Your task to perform on an android device: Open Google Chrome Image 0: 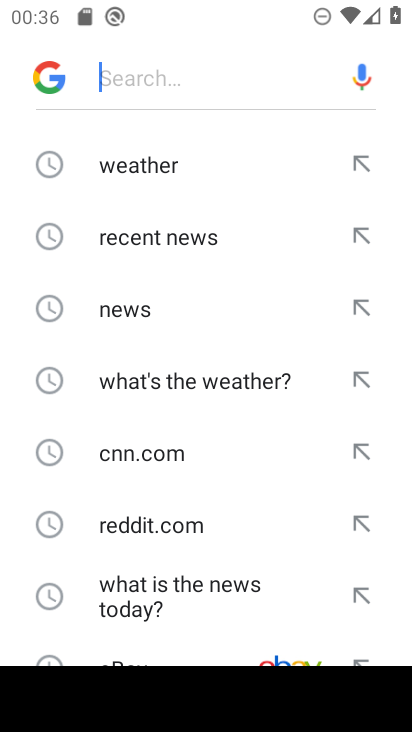
Step 0: press home button
Your task to perform on an android device: Open Google Chrome Image 1: 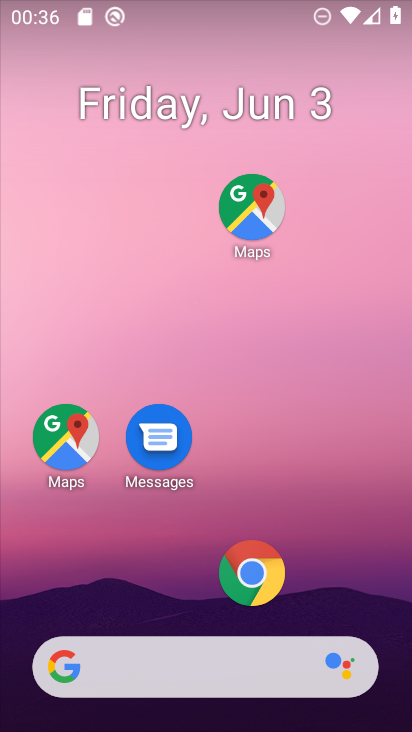
Step 1: click (258, 575)
Your task to perform on an android device: Open Google Chrome Image 2: 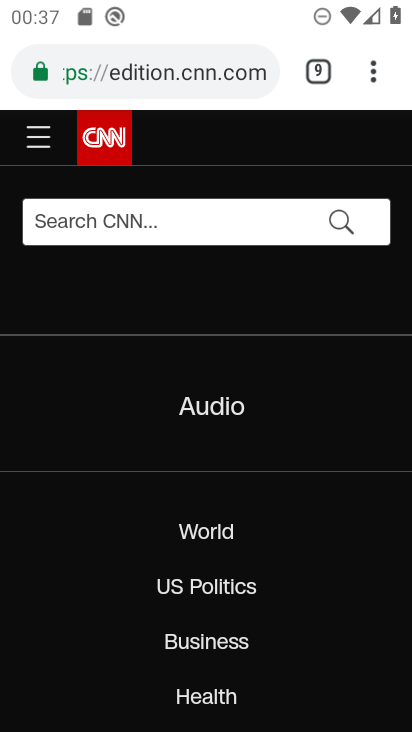
Step 2: task complete